Your task to perform on an android device: Open battery settings Image 0: 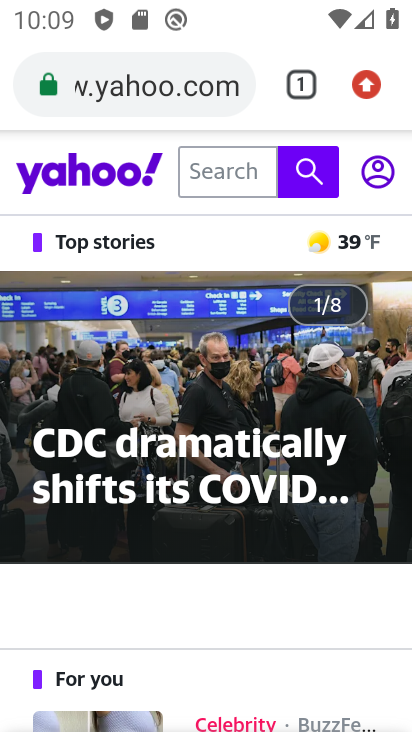
Step 0: press home button
Your task to perform on an android device: Open battery settings Image 1: 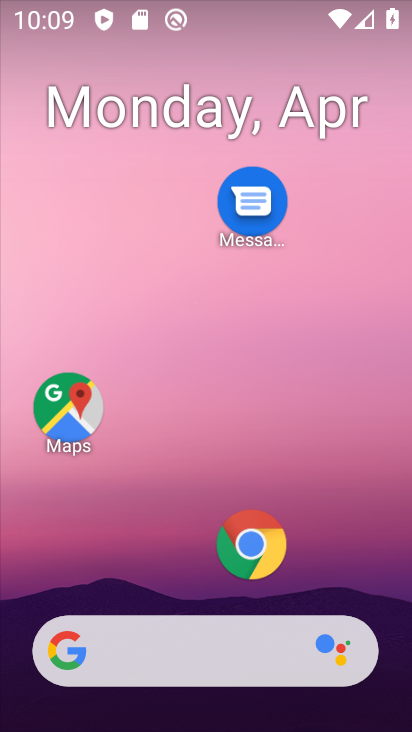
Step 1: drag from (194, 585) to (179, 50)
Your task to perform on an android device: Open battery settings Image 2: 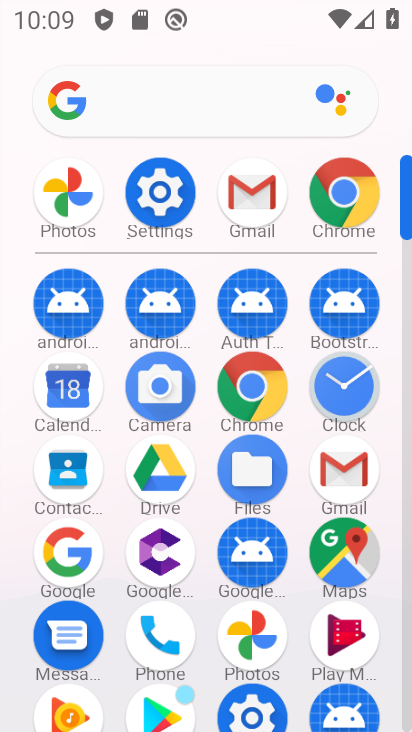
Step 2: click (157, 191)
Your task to perform on an android device: Open battery settings Image 3: 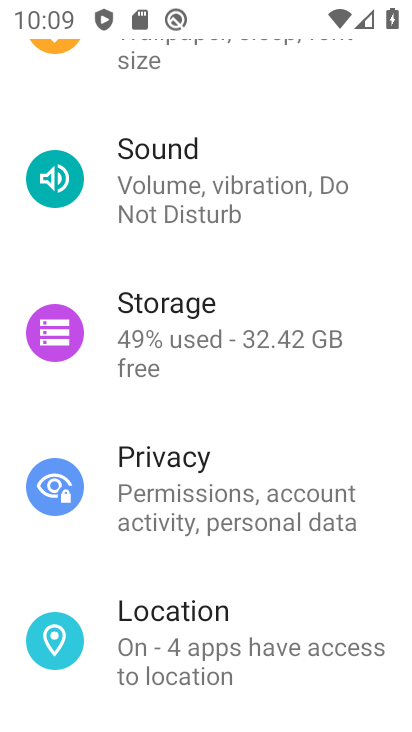
Step 3: drag from (180, 158) to (191, 566)
Your task to perform on an android device: Open battery settings Image 4: 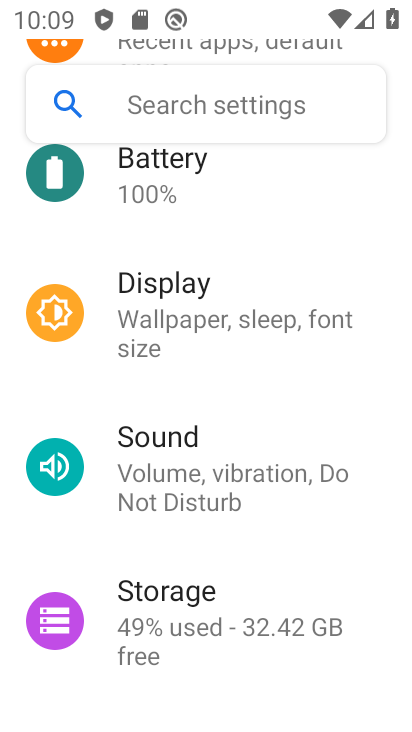
Step 4: click (166, 180)
Your task to perform on an android device: Open battery settings Image 5: 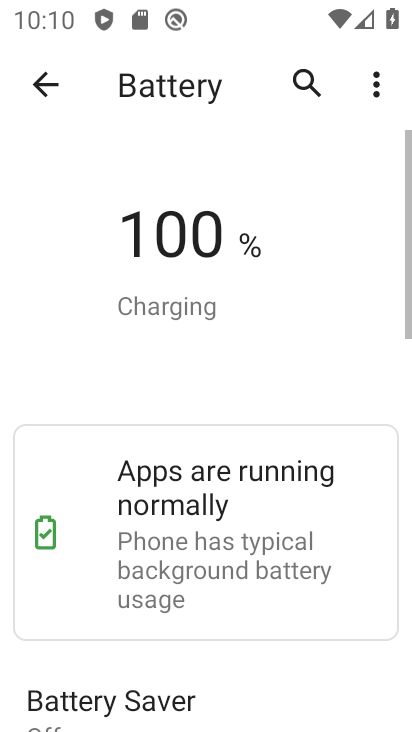
Step 5: task complete